Your task to perform on an android device: change the clock display to analog Image 0: 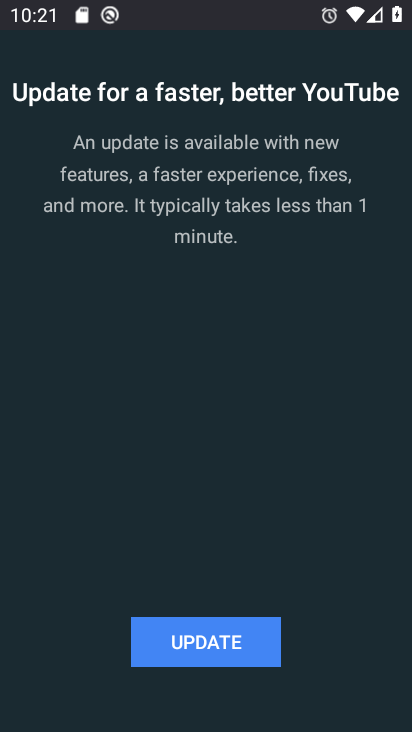
Step 0: click (196, 625)
Your task to perform on an android device: change the clock display to analog Image 1: 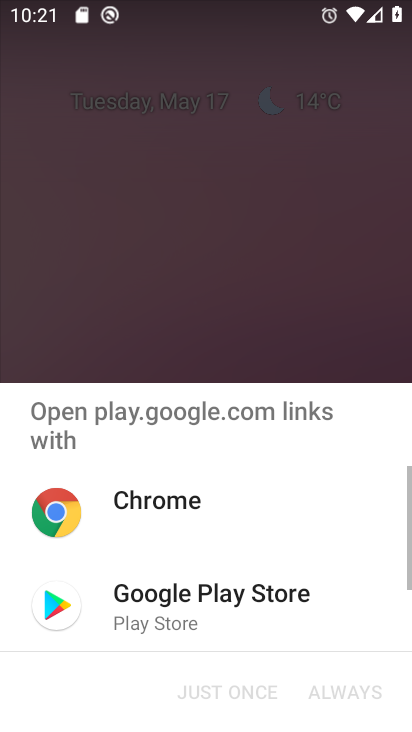
Step 1: press back button
Your task to perform on an android device: change the clock display to analog Image 2: 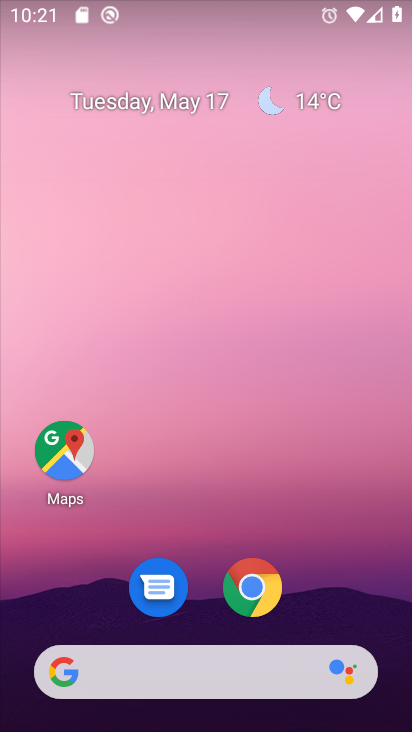
Step 2: press home button
Your task to perform on an android device: change the clock display to analog Image 3: 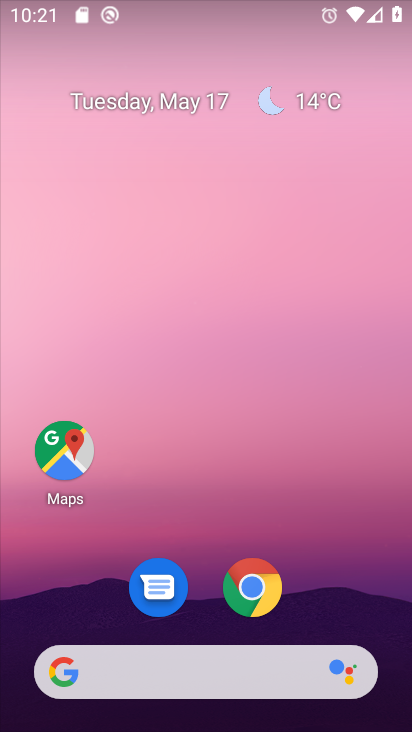
Step 3: drag from (249, 433) to (166, 161)
Your task to perform on an android device: change the clock display to analog Image 4: 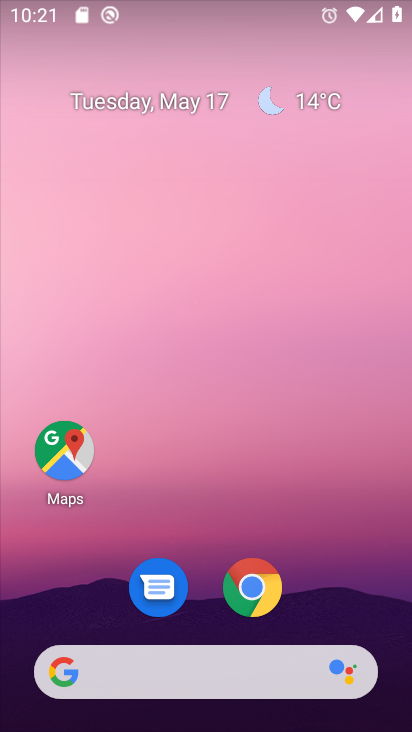
Step 4: drag from (330, 594) to (135, 61)
Your task to perform on an android device: change the clock display to analog Image 5: 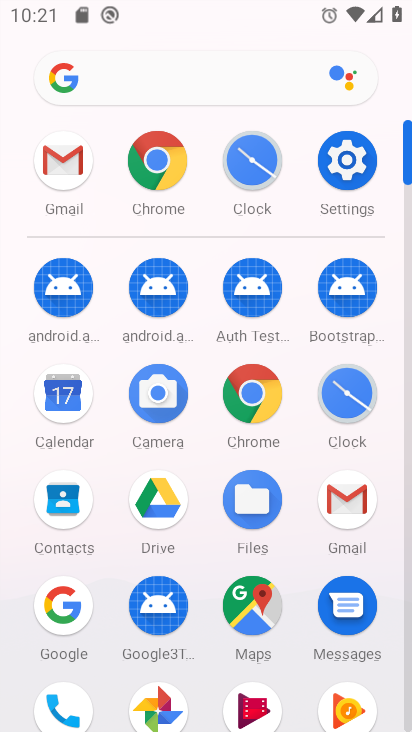
Step 5: click (243, 148)
Your task to perform on an android device: change the clock display to analog Image 6: 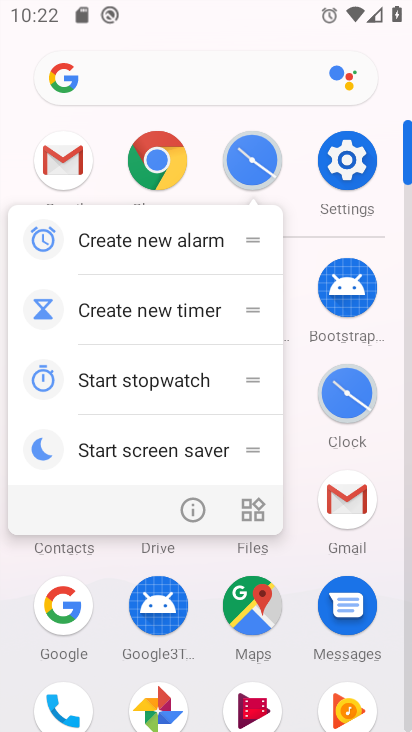
Step 6: click (129, 376)
Your task to perform on an android device: change the clock display to analog Image 7: 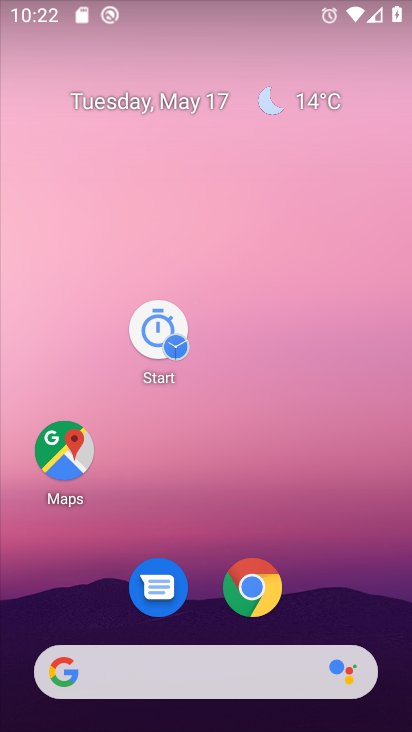
Step 7: drag from (310, 602) to (180, 3)
Your task to perform on an android device: change the clock display to analog Image 8: 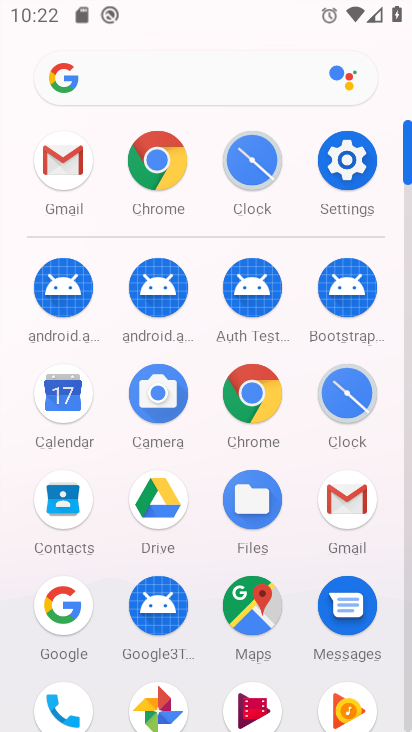
Step 8: click (259, 167)
Your task to perform on an android device: change the clock display to analog Image 9: 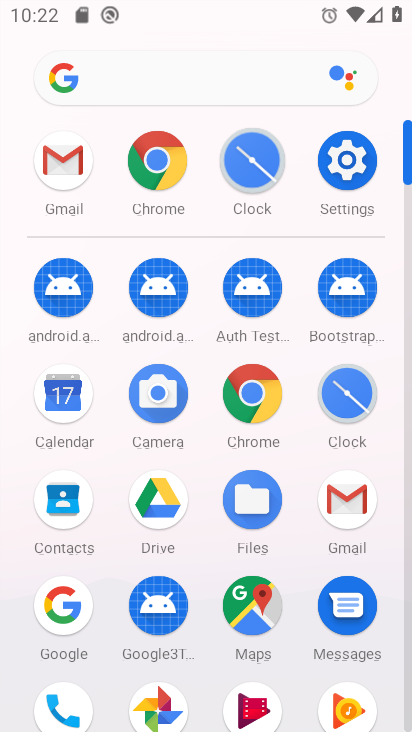
Step 9: click (258, 167)
Your task to perform on an android device: change the clock display to analog Image 10: 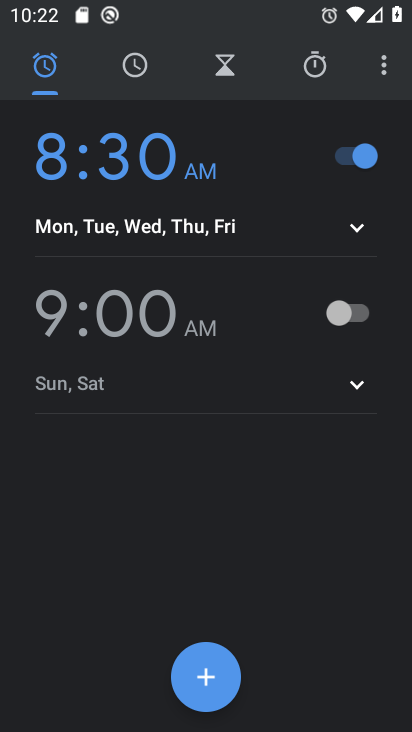
Step 10: click (376, 61)
Your task to perform on an android device: change the clock display to analog Image 11: 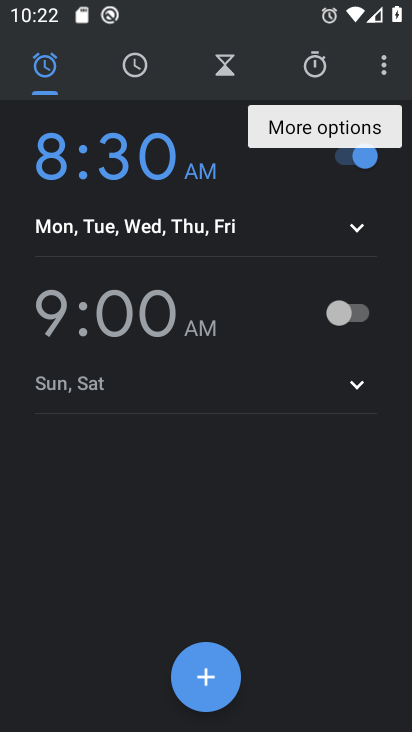
Step 11: click (325, 124)
Your task to perform on an android device: change the clock display to analog Image 12: 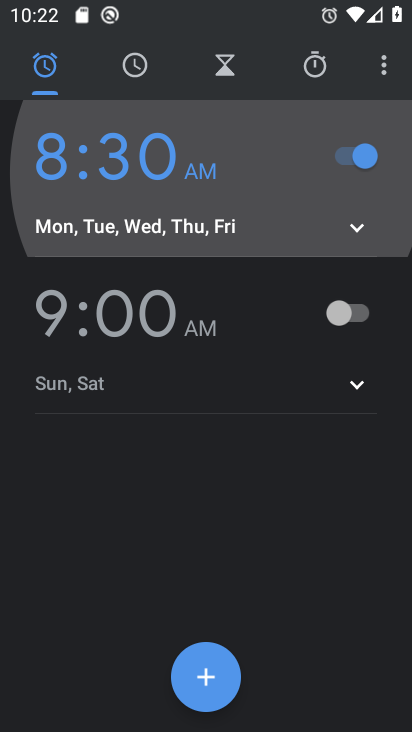
Step 12: click (326, 125)
Your task to perform on an android device: change the clock display to analog Image 13: 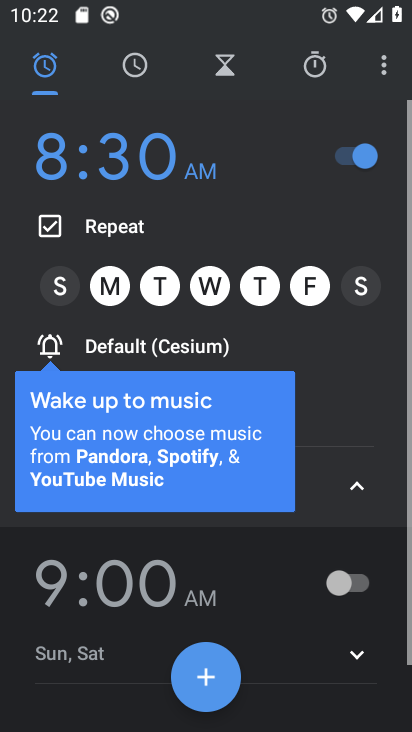
Step 13: click (326, 125)
Your task to perform on an android device: change the clock display to analog Image 14: 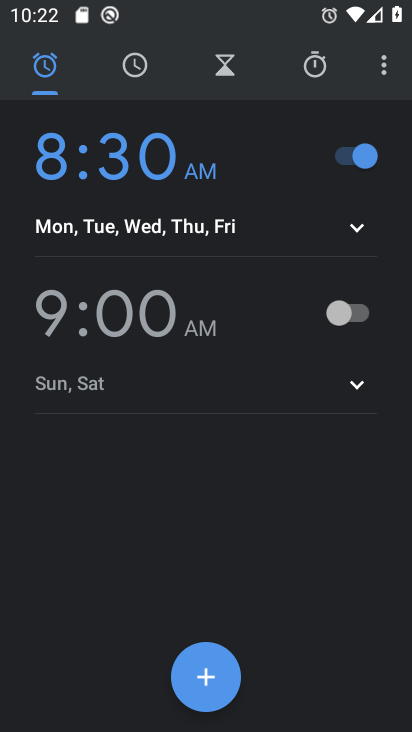
Step 14: click (383, 61)
Your task to perform on an android device: change the clock display to analog Image 15: 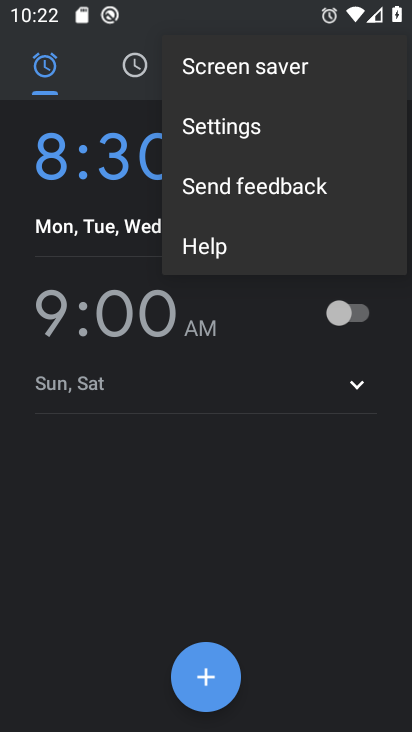
Step 15: click (221, 134)
Your task to perform on an android device: change the clock display to analog Image 16: 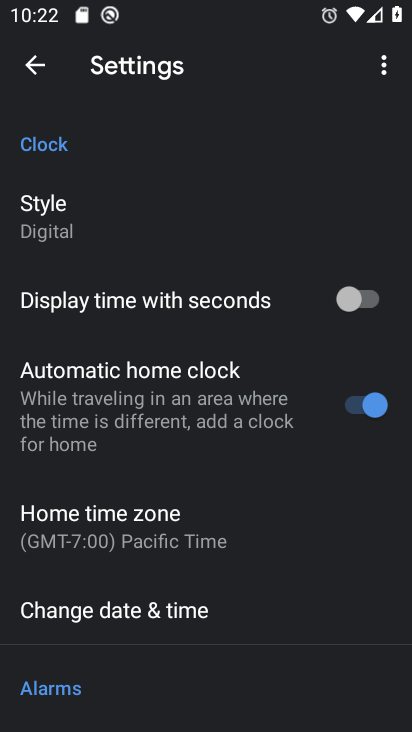
Step 16: click (105, 218)
Your task to perform on an android device: change the clock display to analog Image 17: 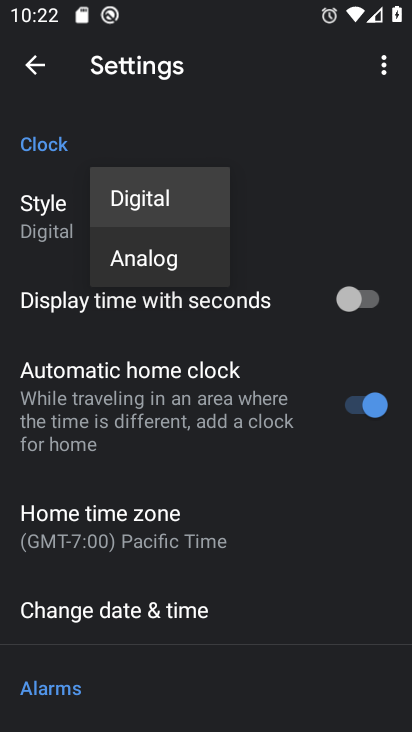
Step 17: click (136, 205)
Your task to perform on an android device: change the clock display to analog Image 18: 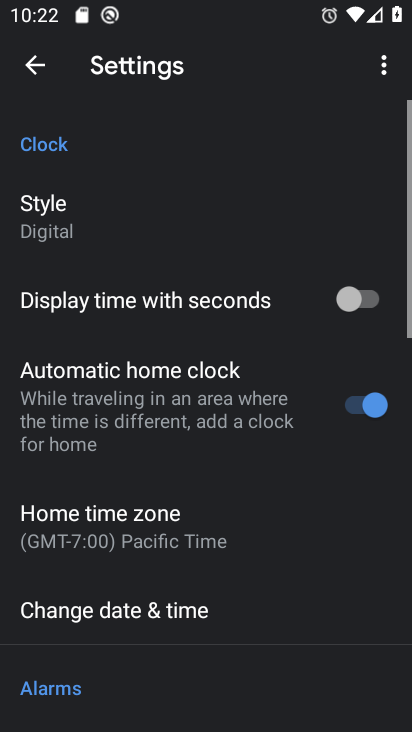
Step 18: click (161, 268)
Your task to perform on an android device: change the clock display to analog Image 19: 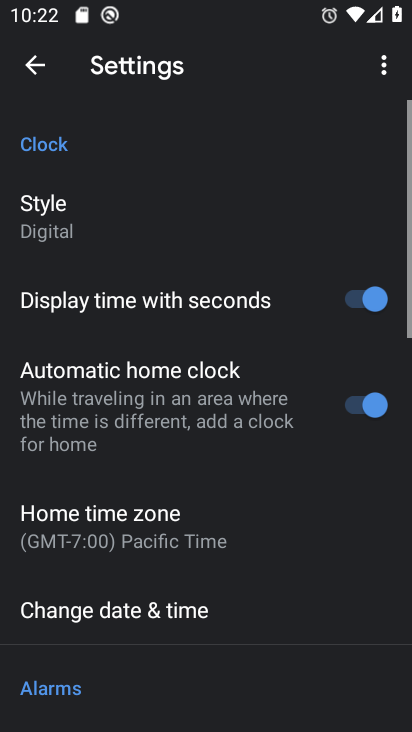
Step 19: click (117, 213)
Your task to perform on an android device: change the clock display to analog Image 20: 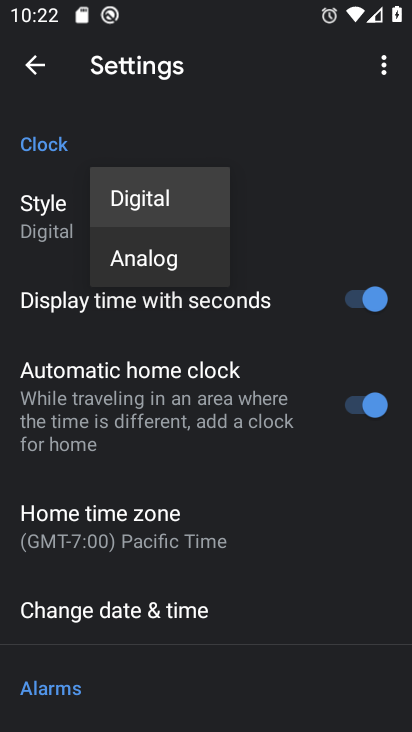
Step 20: click (161, 254)
Your task to perform on an android device: change the clock display to analog Image 21: 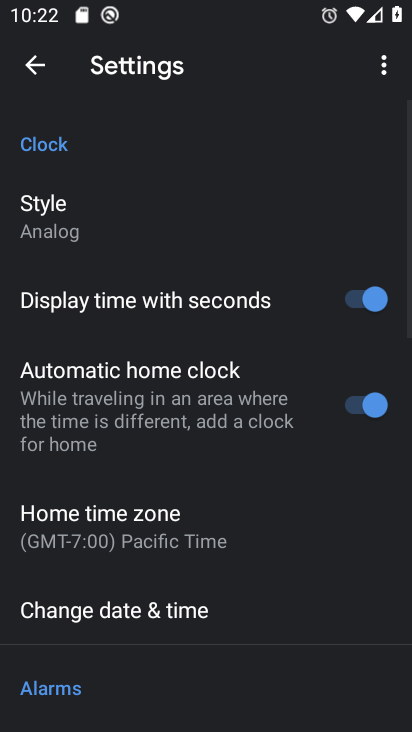
Step 21: task complete